Your task to perform on an android device: change alarm snooze length Image 0: 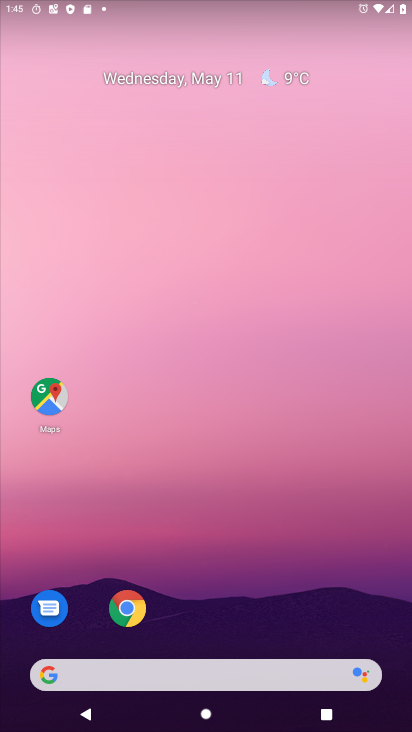
Step 0: drag from (174, 596) to (164, 26)
Your task to perform on an android device: change alarm snooze length Image 1: 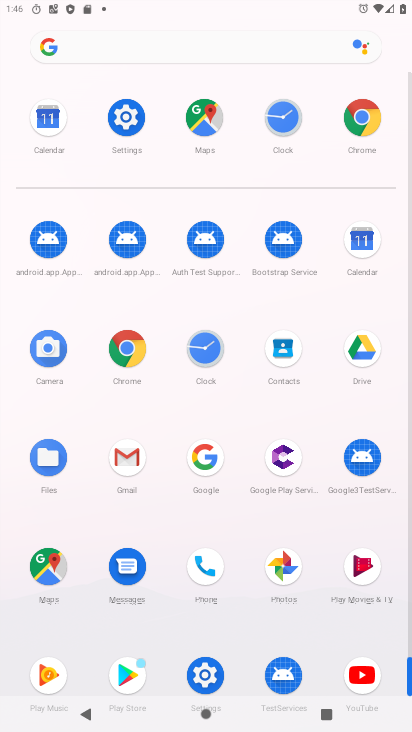
Step 1: click (278, 134)
Your task to perform on an android device: change alarm snooze length Image 2: 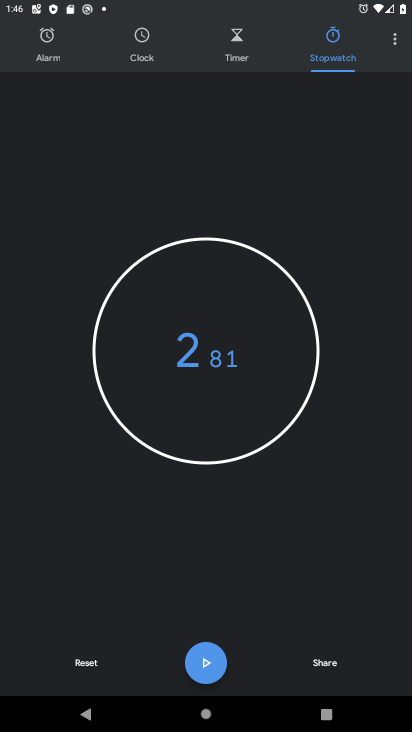
Step 2: click (395, 36)
Your task to perform on an android device: change alarm snooze length Image 3: 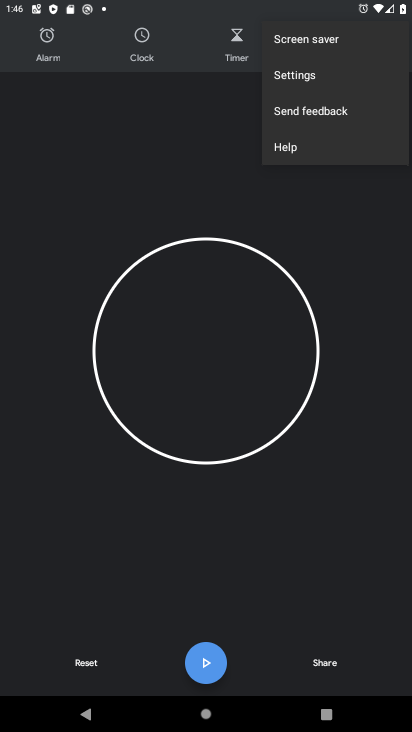
Step 3: click (317, 81)
Your task to perform on an android device: change alarm snooze length Image 4: 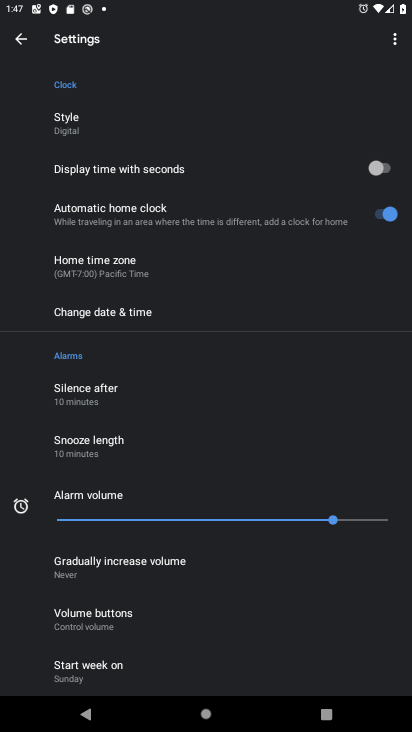
Step 4: click (142, 450)
Your task to perform on an android device: change alarm snooze length Image 5: 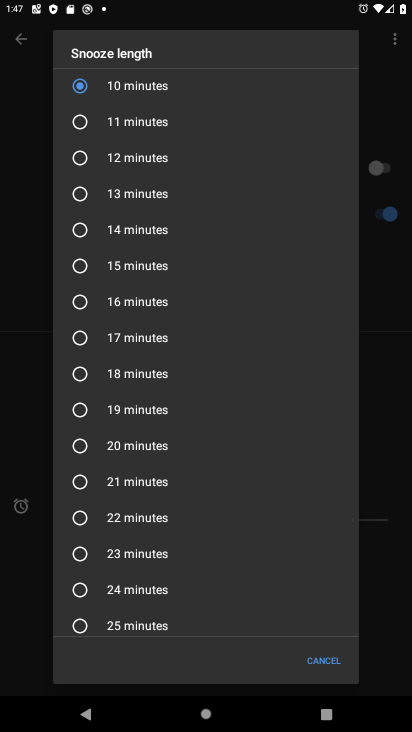
Step 5: click (80, 170)
Your task to perform on an android device: change alarm snooze length Image 6: 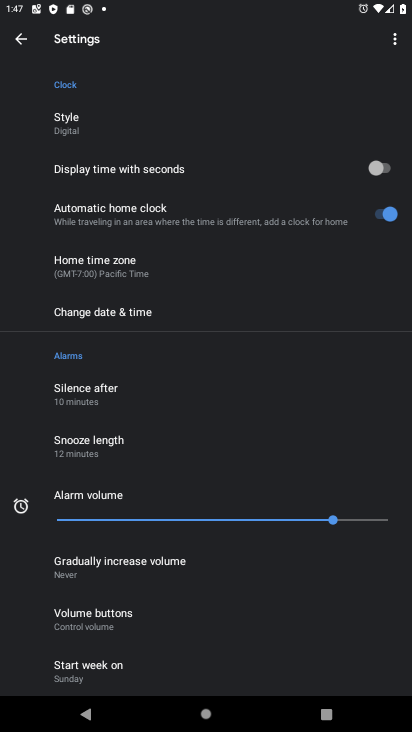
Step 6: task complete